Your task to perform on an android device: Check the news Image 0: 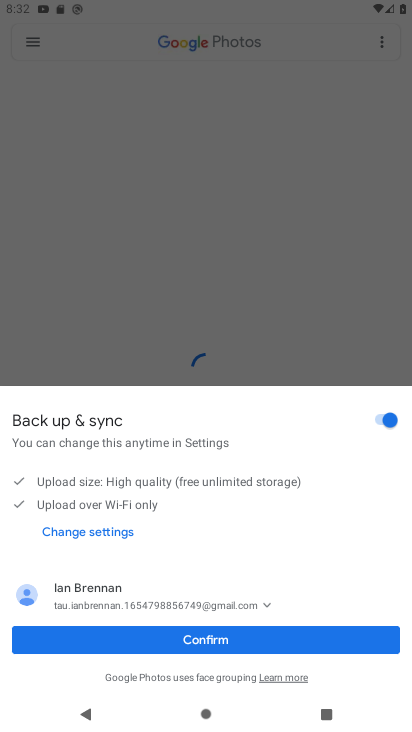
Step 0: press home button
Your task to perform on an android device: Check the news Image 1: 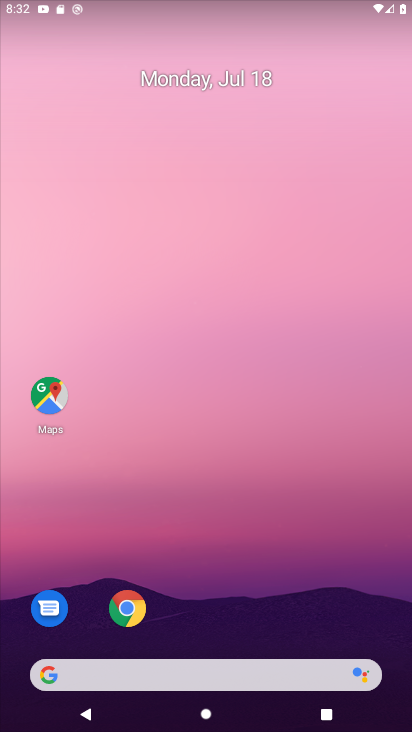
Step 1: click (127, 609)
Your task to perform on an android device: Check the news Image 2: 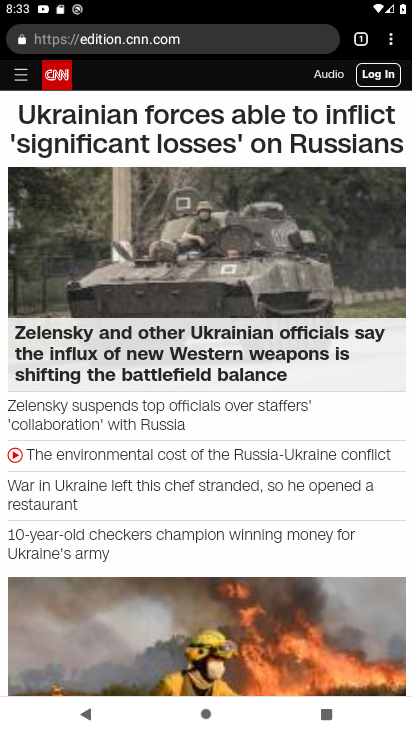
Step 2: task complete